Your task to perform on an android device: Search for the new Nike Air Max 270 on Nike.com Image 0: 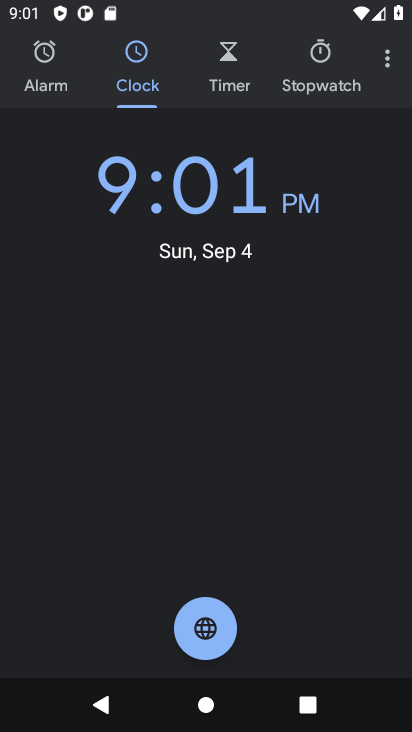
Step 0: press home button
Your task to perform on an android device: Search for the new Nike Air Max 270 on Nike.com Image 1: 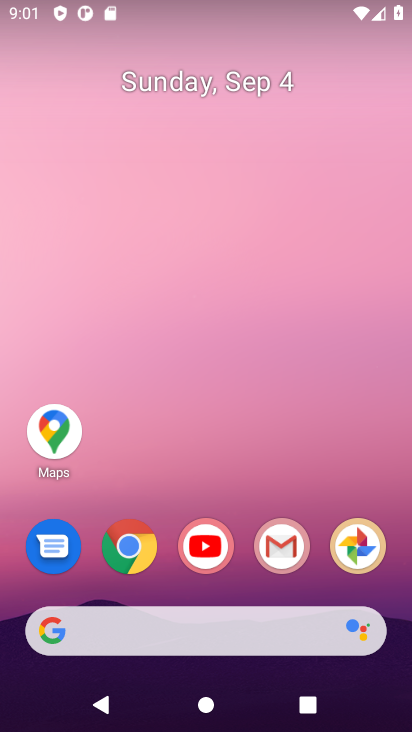
Step 1: click (131, 558)
Your task to perform on an android device: Search for the new Nike Air Max 270 on Nike.com Image 2: 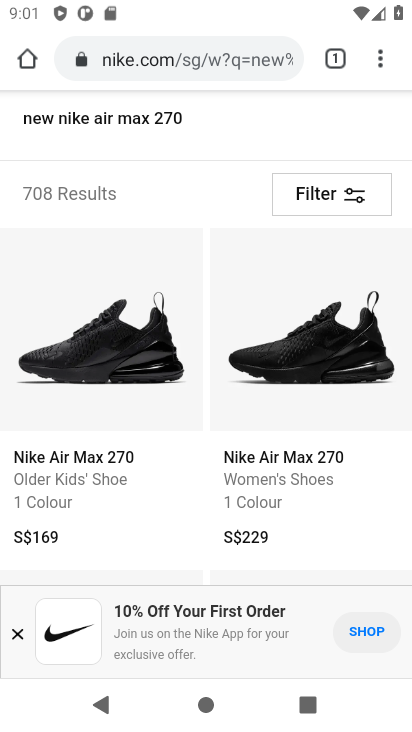
Step 2: task complete